Your task to perform on an android device: When is my next meeting? Image 0: 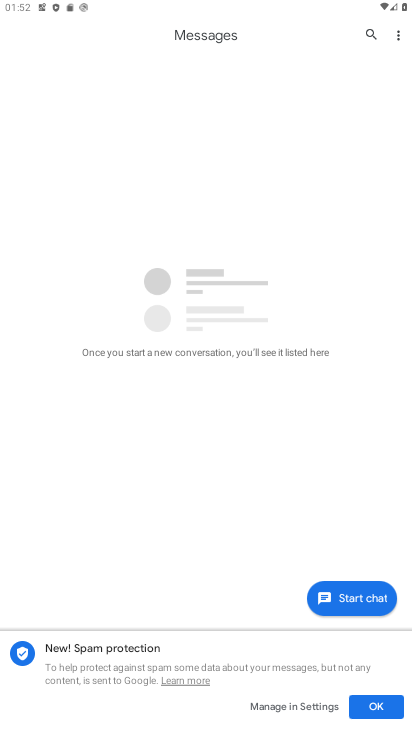
Step 0: press home button
Your task to perform on an android device: When is my next meeting? Image 1: 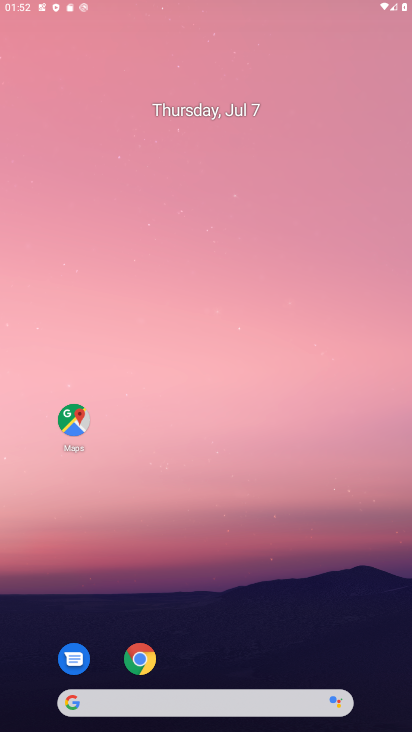
Step 1: drag from (219, 572) to (269, 131)
Your task to perform on an android device: When is my next meeting? Image 2: 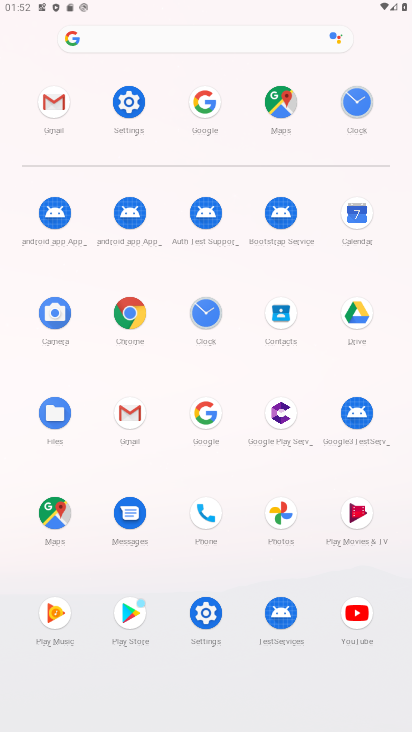
Step 2: click (360, 209)
Your task to perform on an android device: When is my next meeting? Image 3: 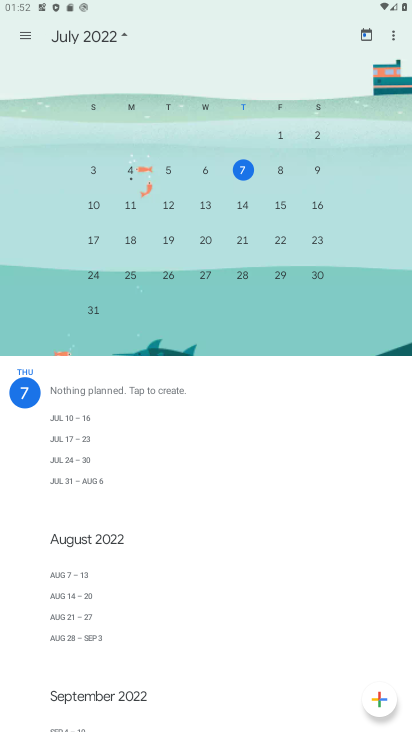
Step 3: click (292, 169)
Your task to perform on an android device: When is my next meeting? Image 4: 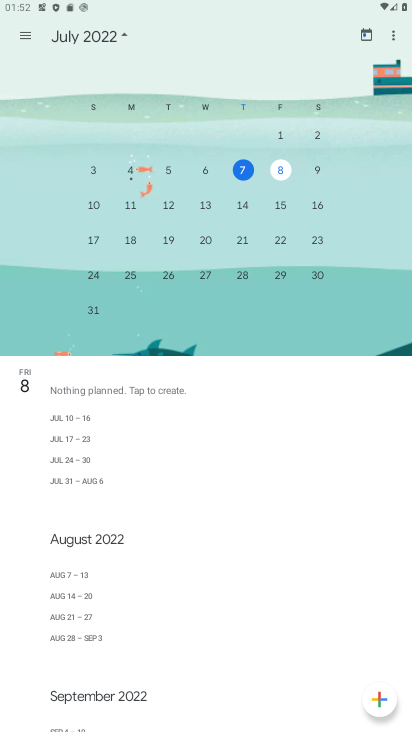
Step 4: task complete